Your task to perform on an android device: Search for vegetarian restaurants on Maps Image 0: 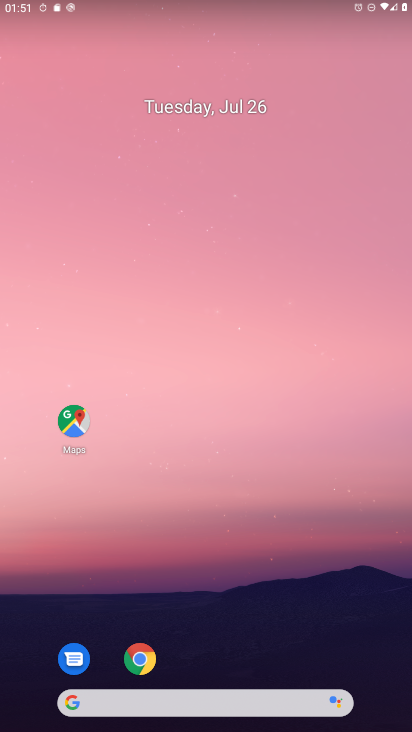
Step 0: click (70, 411)
Your task to perform on an android device: Search for vegetarian restaurants on Maps Image 1: 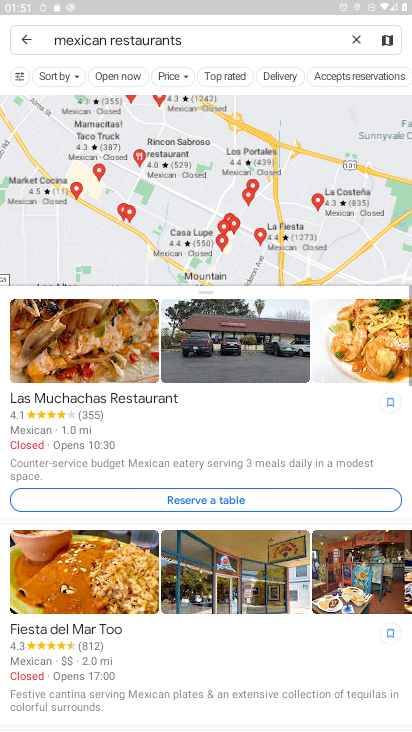
Step 1: click (359, 42)
Your task to perform on an android device: Search for vegetarian restaurants on Maps Image 2: 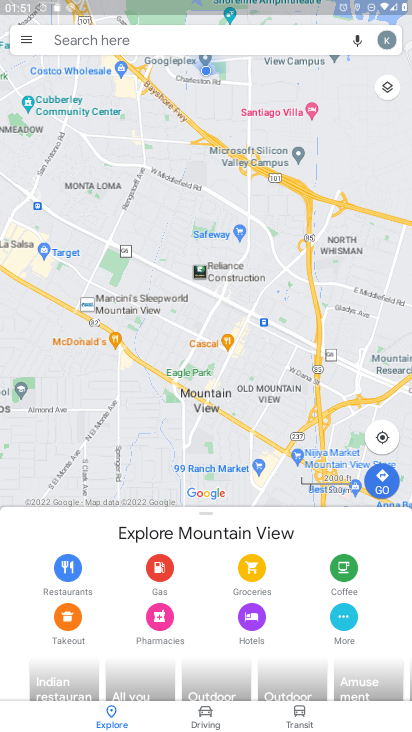
Step 2: click (305, 39)
Your task to perform on an android device: Search for vegetarian restaurants on Maps Image 3: 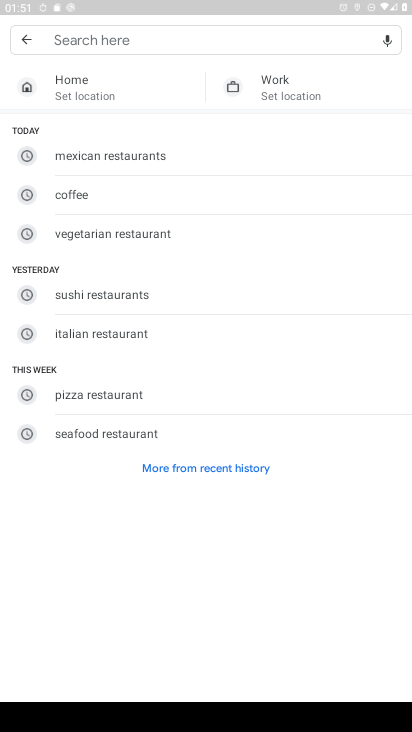
Step 3: type "vegetarian restaurants"
Your task to perform on an android device: Search for vegetarian restaurants on Maps Image 4: 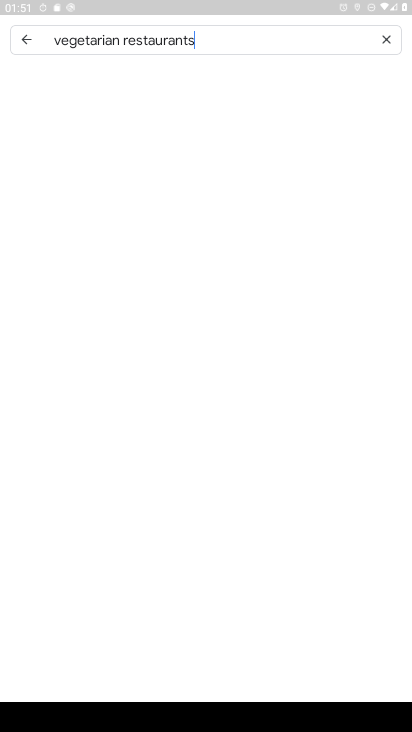
Step 4: type ""
Your task to perform on an android device: Search for vegetarian restaurants on Maps Image 5: 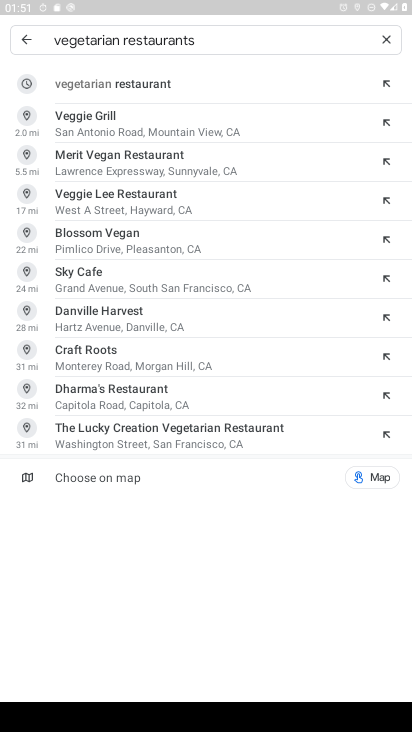
Step 5: click (112, 85)
Your task to perform on an android device: Search for vegetarian restaurants on Maps Image 6: 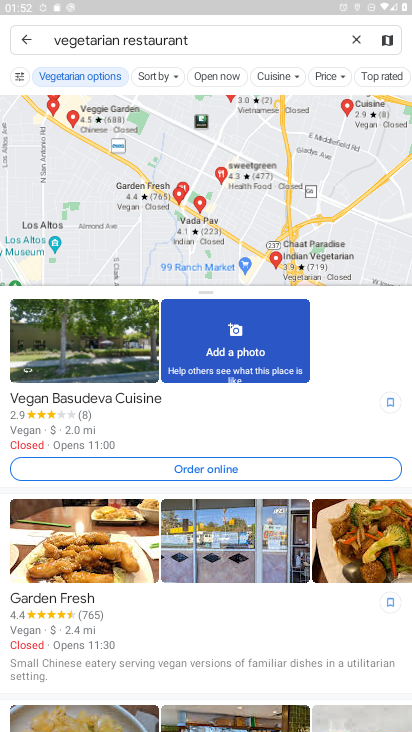
Step 6: task complete